Your task to perform on an android device: toggle airplane mode Image 0: 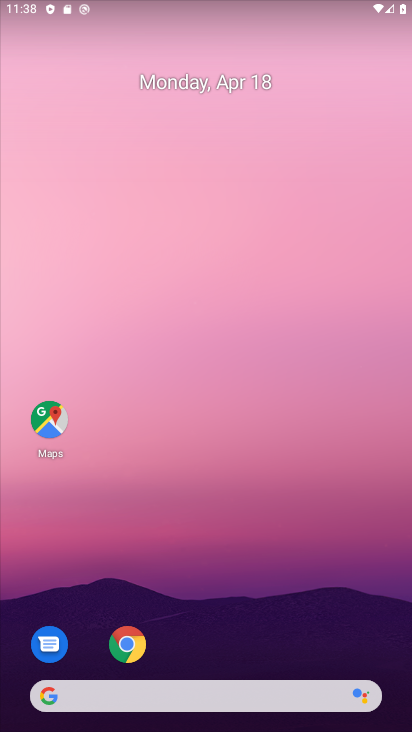
Step 0: drag from (231, 654) to (393, 72)
Your task to perform on an android device: toggle airplane mode Image 1: 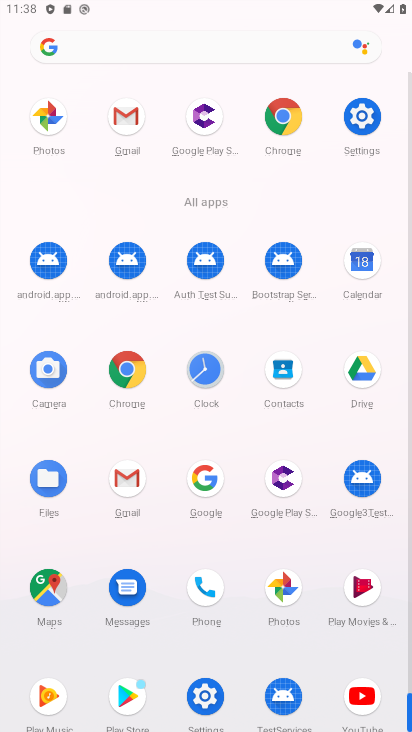
Step 1: click (209, 707)
Your task to perform on an android device: toggle airplane mode Image 2: 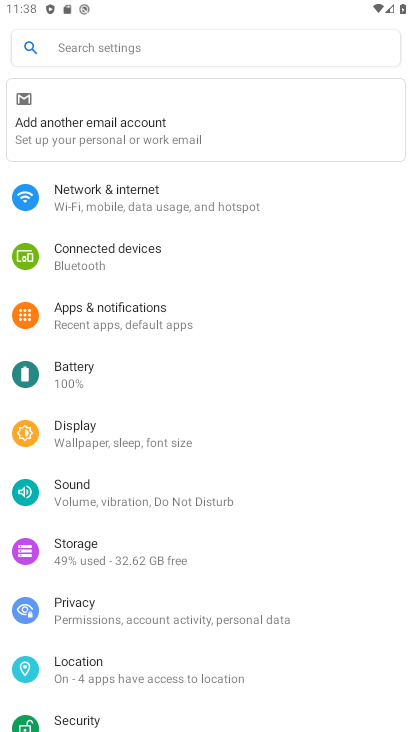
Step 2: click (185, 194)
Your task to perform on an android device: toggle airplane mode Image 3: 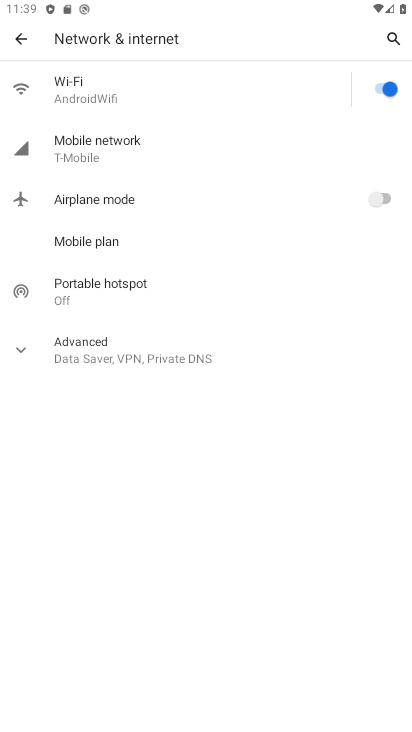
Step 3: click (396, 194)
Your task to perform on an android device: toggle airplane mode Image 4: 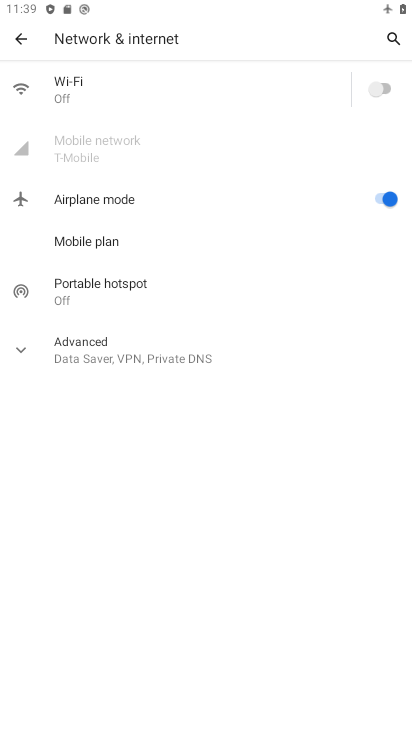
Step 4: task complete